Your task to perform on an android device: Open my contact list Image 0: 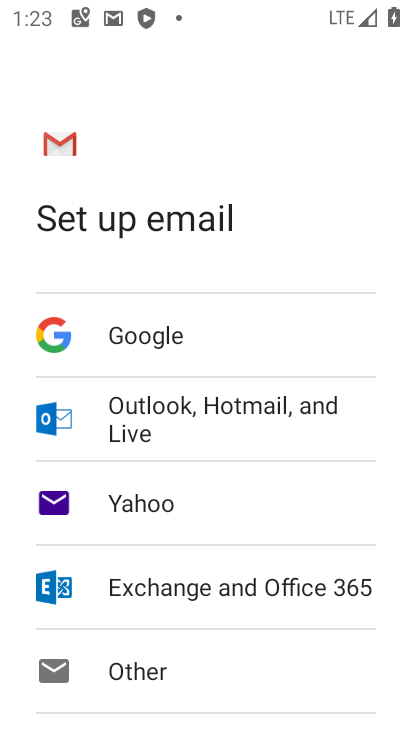
Step 0: press home button
Your task to perform on an android device: Open my contact list Image 1: 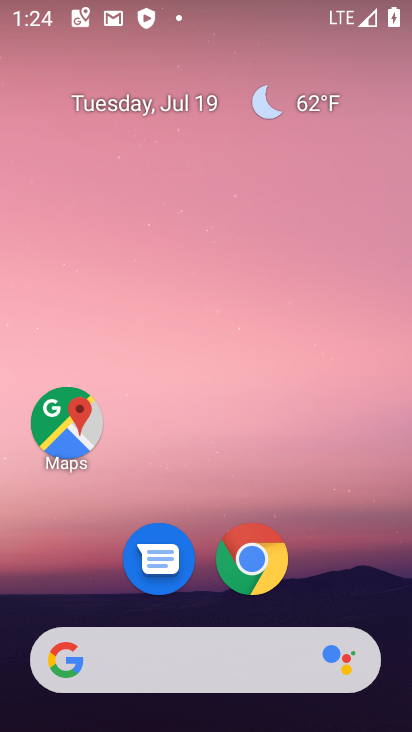
Step 1: drag from (270, 523) to (285, 39)
Your task to perform on an android device: Open my contact list Image 2: 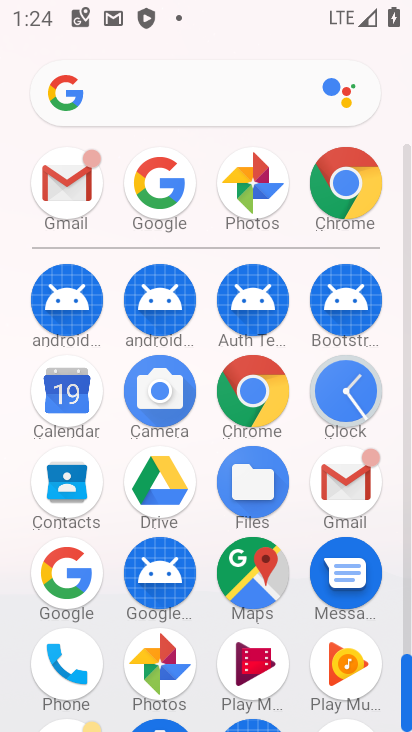
Step 2: drag from (240, 392) to (251, 0)
Your task to perform on an android device: Open my contact list Image 3: 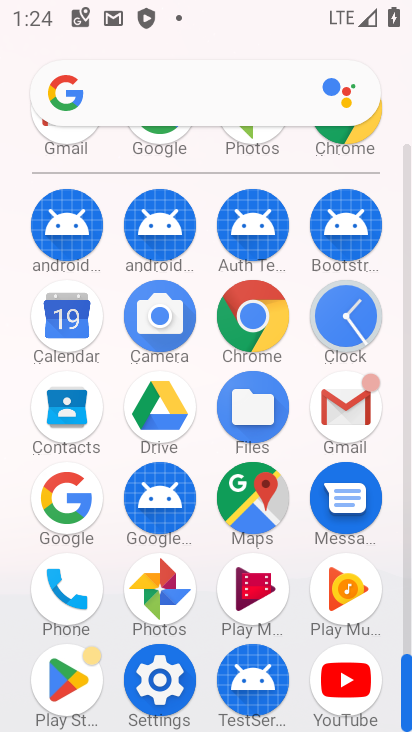
Step 3: click (74, 417)
Your task to perform on an android device: Open my contact list Image 4: 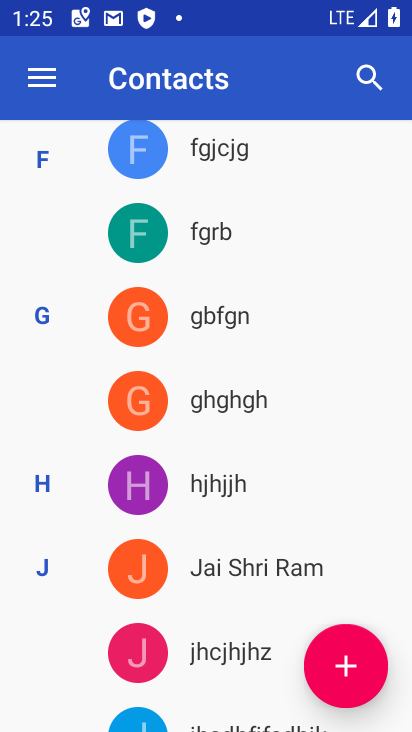
Step 4: task complete